Your task to perform on an android device: open sync settings in chrome Image 0: 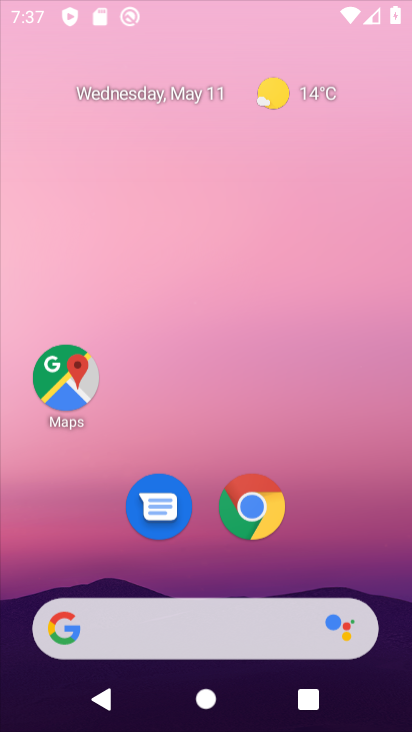
Step 0: drag from (358, 502) to (408, 40)
Your task to perform on an android device: open sync settings in chrome Image 1: 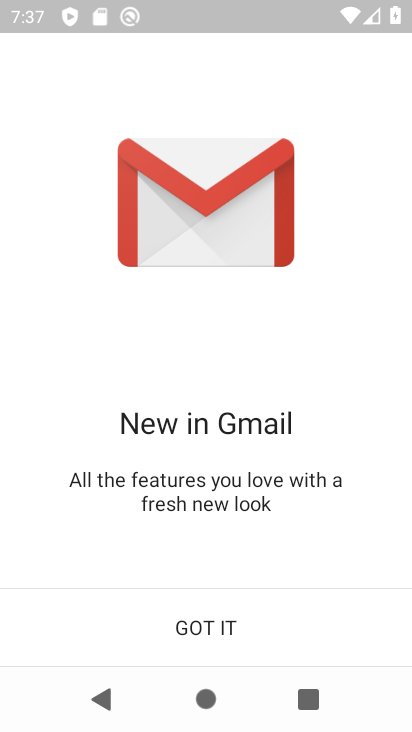
Step 1: click (226, 632)
Your task to perform on an android device: open sync settings in chrome Image 2: 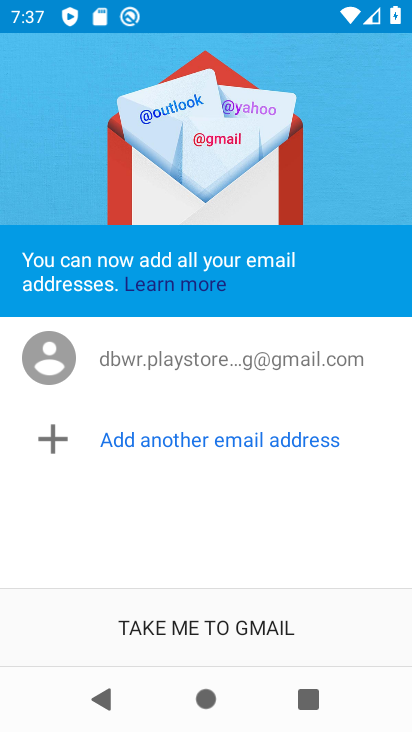
Step 2: click (249, 629)
Your task to perform on an android device: open sync settings in chrome Image 3: 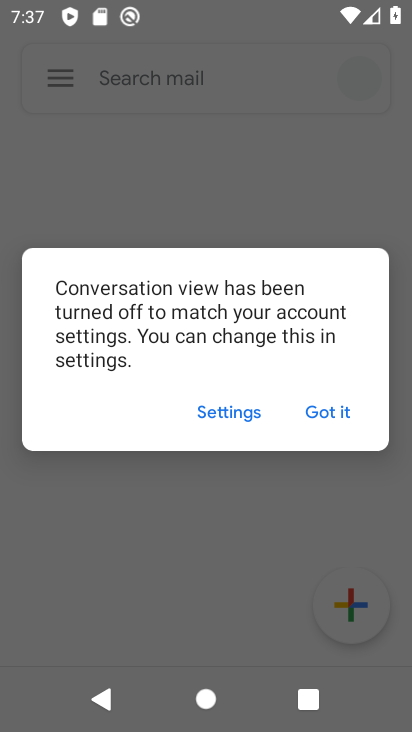
Step 3: click (336, 419)
Your task to perform on an android device: open sync settings in chrome Image 4: 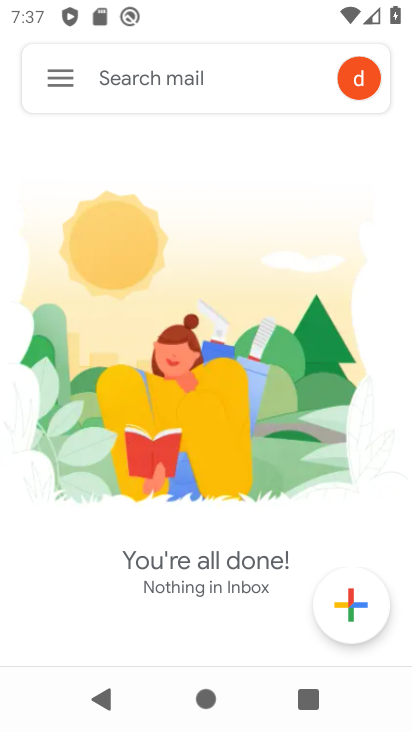
Step 4: click (66, 84)
Your task to perform on an android device: open sync settings in chrome Image 5: 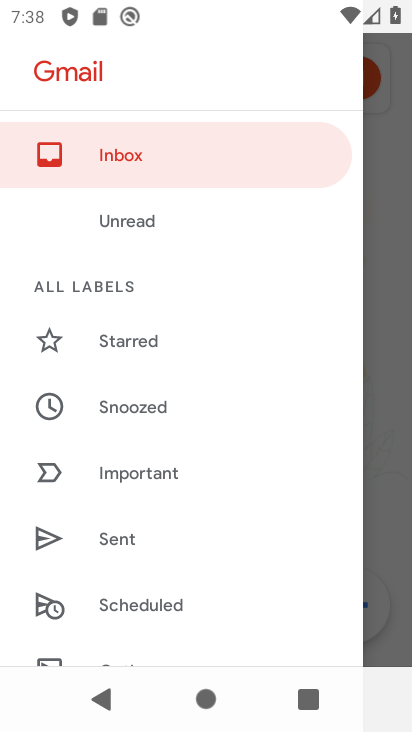
Step 5: press home button
Your task to perform on an android device: open sync settings in chrome Image 6: 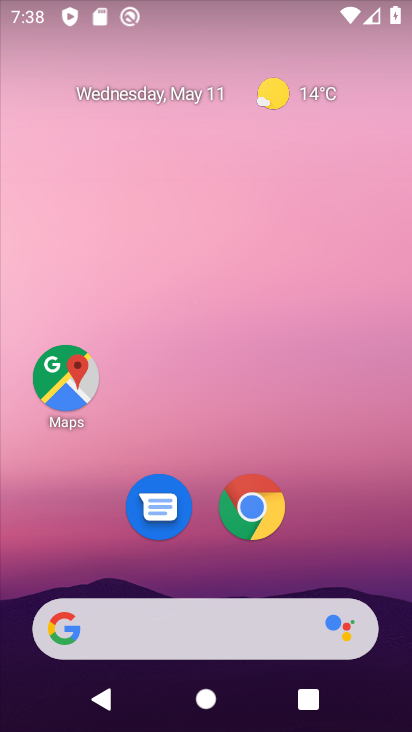
Step 6: drag from (326, 559) to (314, 69)
Your task to perform on an android device: open sync settings in chrome Image 7: 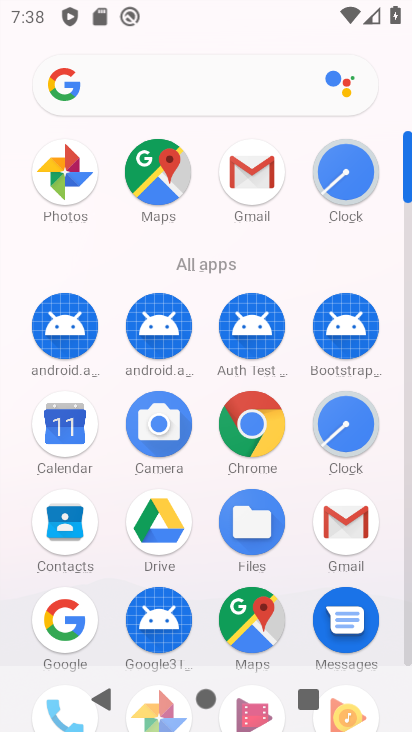
Step 7: click (246, 464)
Your task to perform on an android device: open sync settings in chrome Image 8: 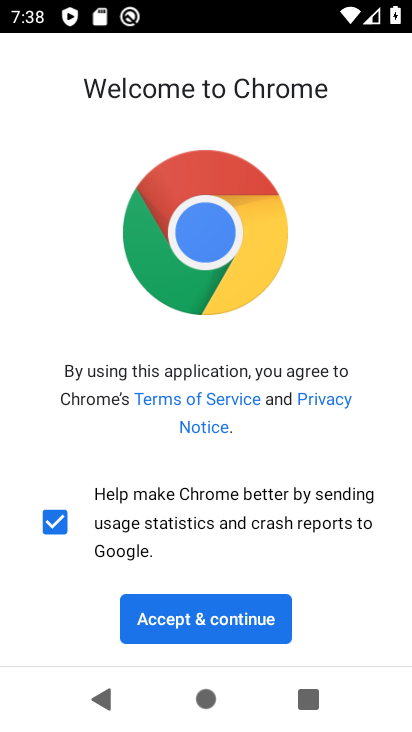
Step 8: click (213, 619)
Your task to perform on an android device: open sync settings in chrome Image 9: 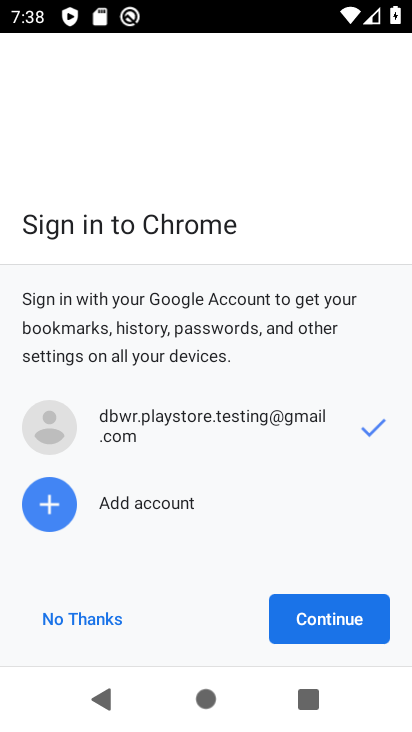
Step 9: click (69, 608)
Your task to perform on an android device: open sync settings in chrome Image 10: 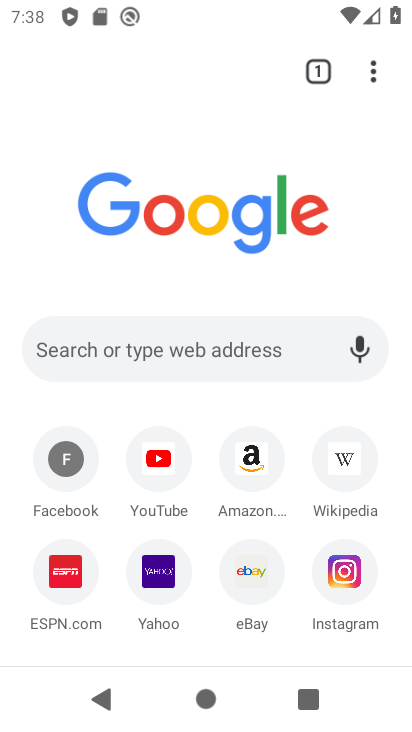
Step 10: drag from (373, 83) to (152, 511)
Your task to perform on an android device: open sync settings in chrome Image 11: 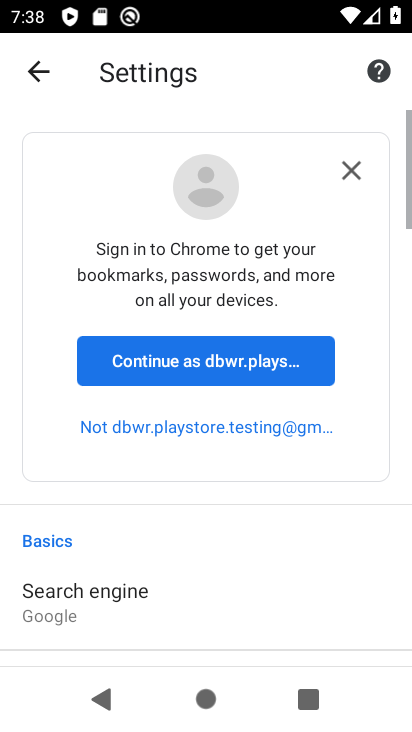
Step 11: drag from (125, 565) to (168, 147)
Your task to perform on an android device: open sync settings in chrome Image 12: 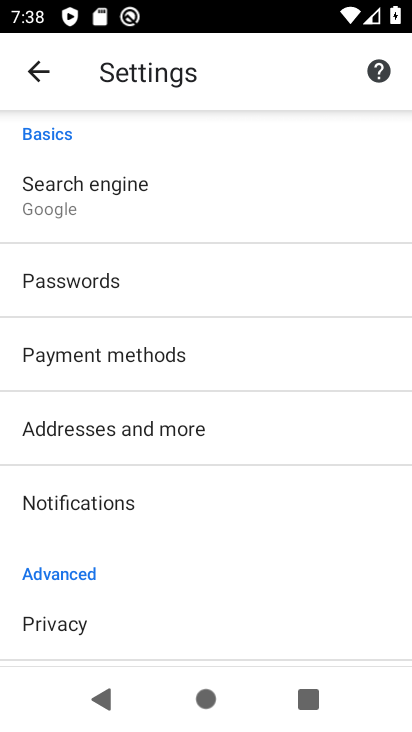
Step 12: drag from (158, 614) to (212, 174)
Your task to perform on an android device: open sync settings in chrome Image 13: 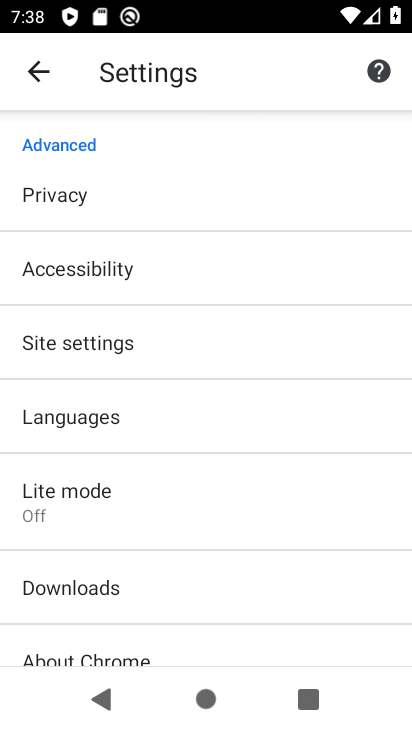
Step 13: drag from (176, 582) to (189, 206)
Your task to perform on an android device: open sync settings in chrome Image 14: 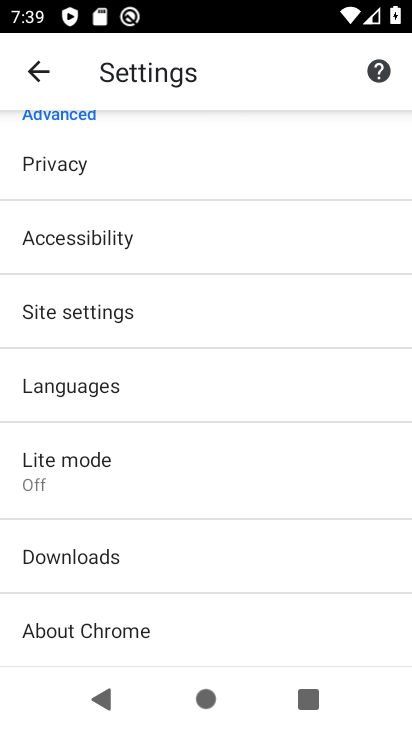
Step 14: click (121, 316)
Your task to perform on an android device: open sync settings in chrome Image 15: 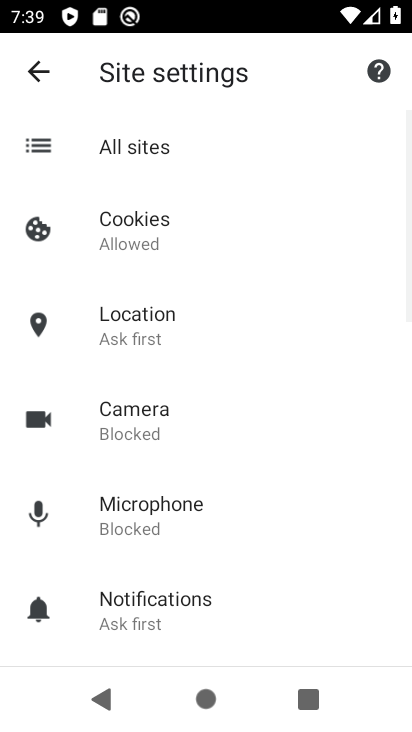
Step 15: drag from (169, 562) to (124, 177)
Your task to perform on an android device: open sync settings in chrome Image 16: 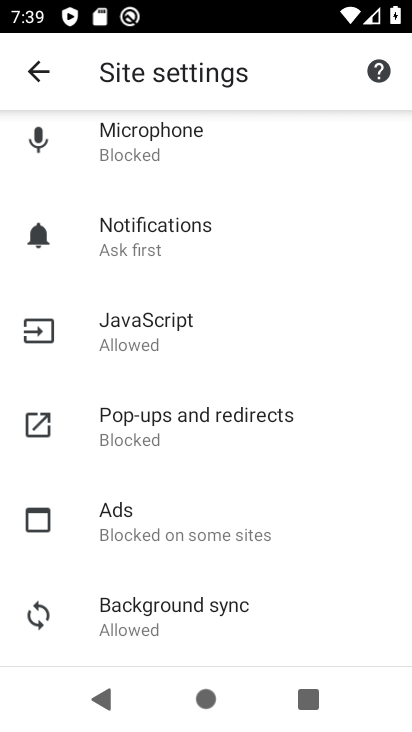
Step 16: click (236, 611)
Your task to perform on an android device: open sync settings in chrome Image 17: 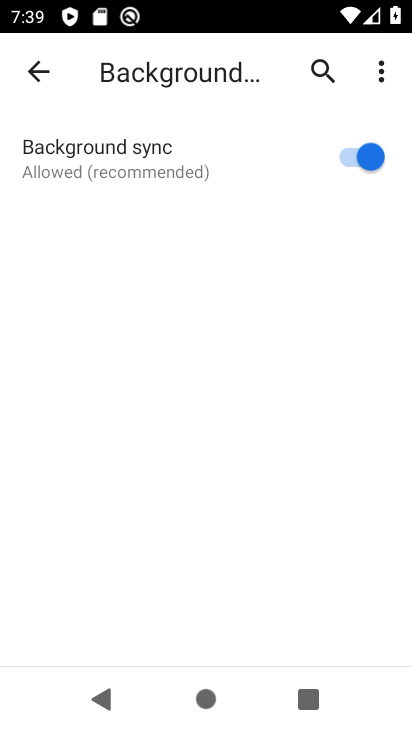
Step 17: task complete